Your task to perform on an android device: Go to Reddit.com Image 0: 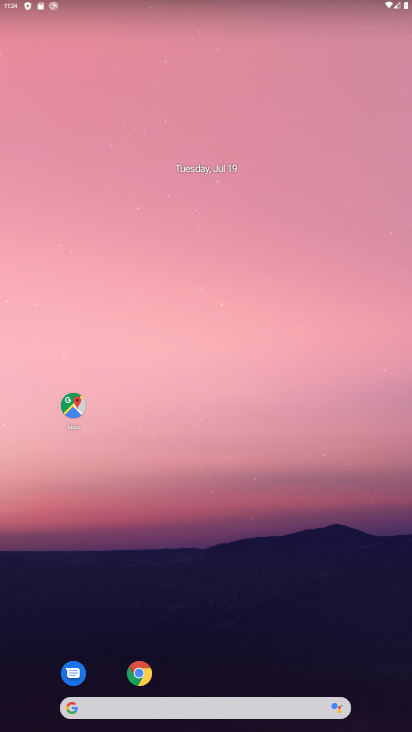
Step 0: click (180, 706)
Your task to perform on an android device: Go to Reddit.com Image 1: 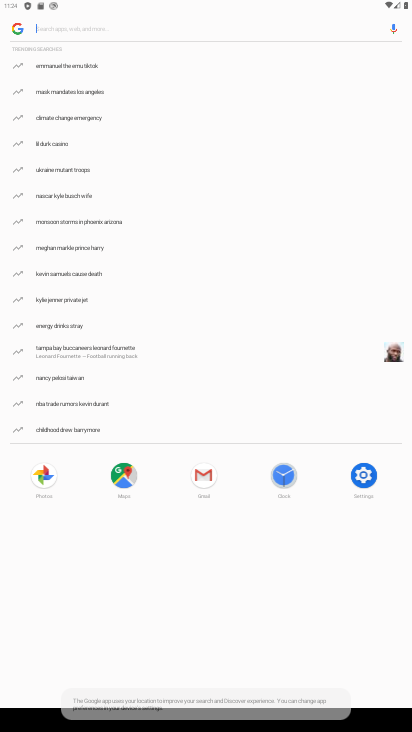
Step 1: click (81, 20)
Your task to perform on an android device: Go to Reddit.com Image 2: 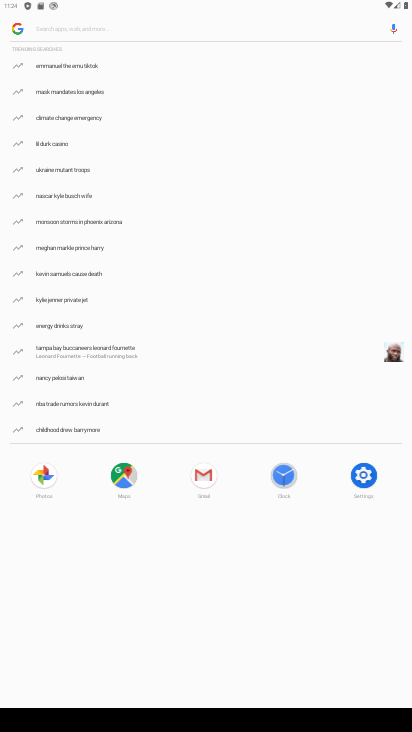
Step 2: click (81, 20)
Your task to perform on an android device: Go to Reddit.com Image 3: 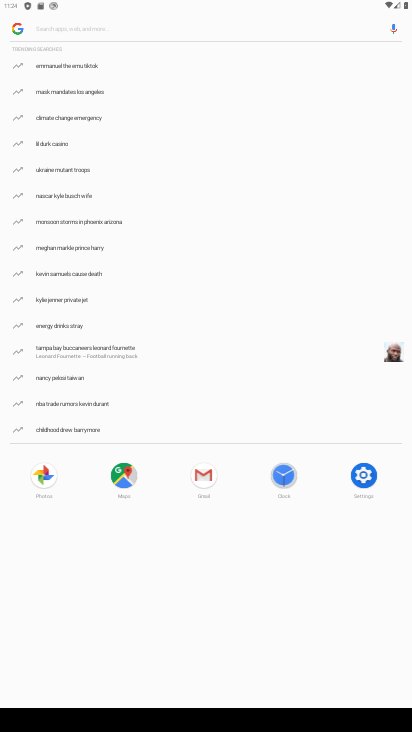
Step 3: click (152, 25)
Your task to perform on an android device: Go to Reddit.com Image 4: 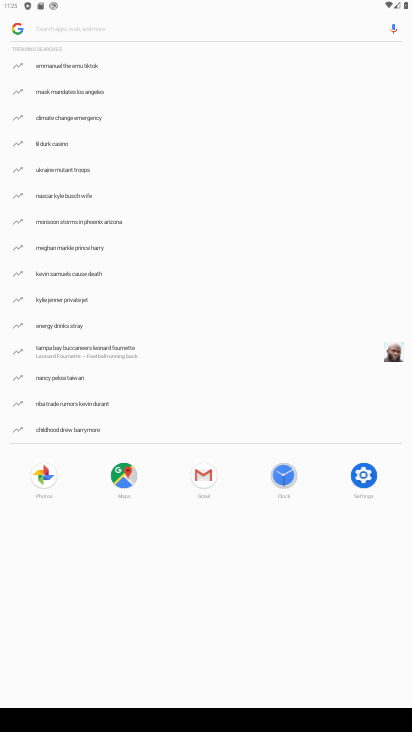
Step 4: type "Reddit.com"
Your task to perform on an android device: Go to Reddit.com Image 5: 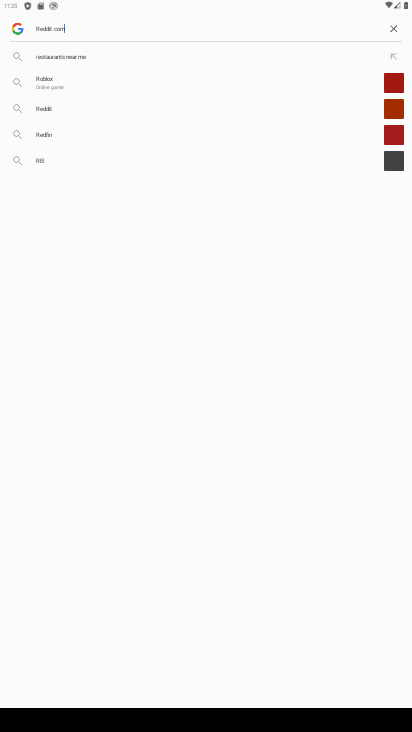
Step 5: type ""
Your task to perform on an android device: Go to Reddit.com Image 6: 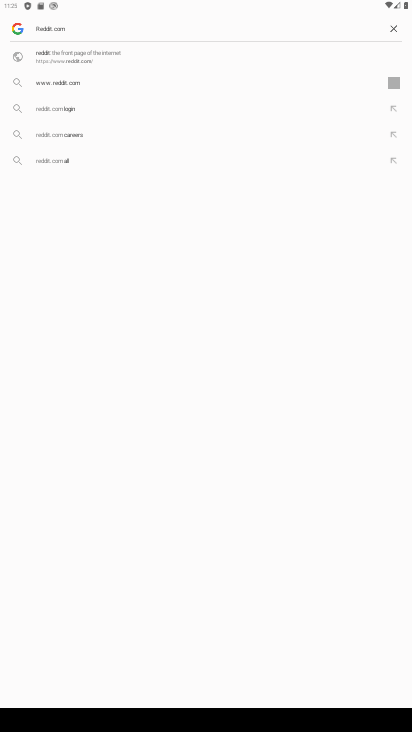
Step 6: click (73, 44)
Your task to perform on an android device: Go to Reddit.com Image 7: 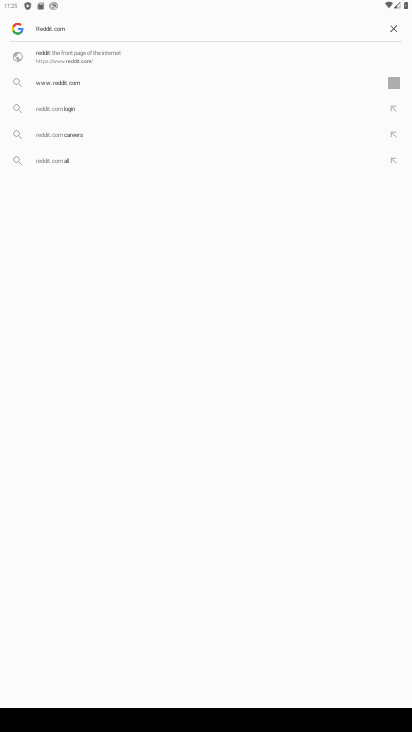
Step 7: click (52, 64)
Your task to perform on an android device: Go to Reddit.com Image 8: 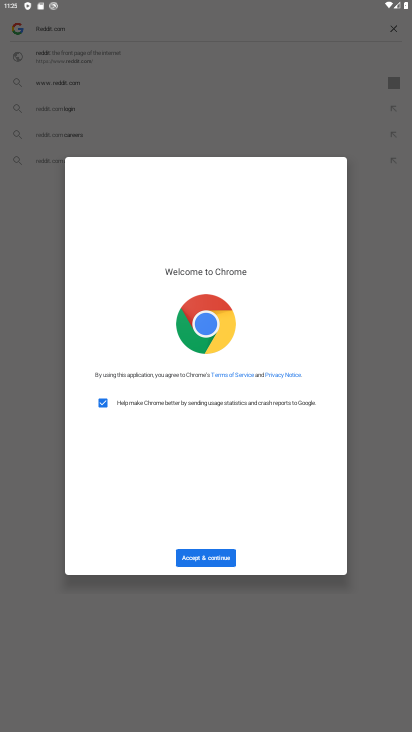
Step 8: click (193, 564)
Your task to perform on an android device: Go to Reddit.com Image 9: 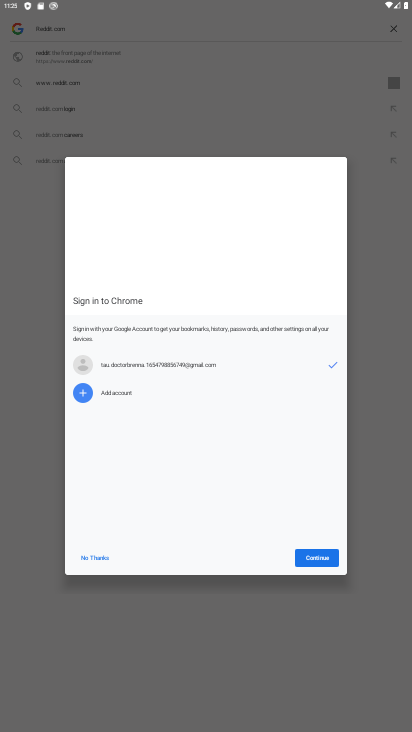
Step 9: click (77, 562)
Your task to perform on an android device: Go to Reddit.com Image 10: 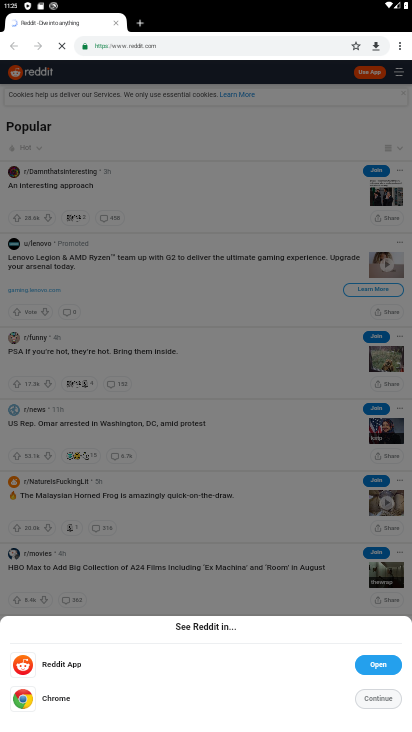
Step 10: task complete